Your task to perform on an android device: toggle priority inbox in the gmail app Image 0: 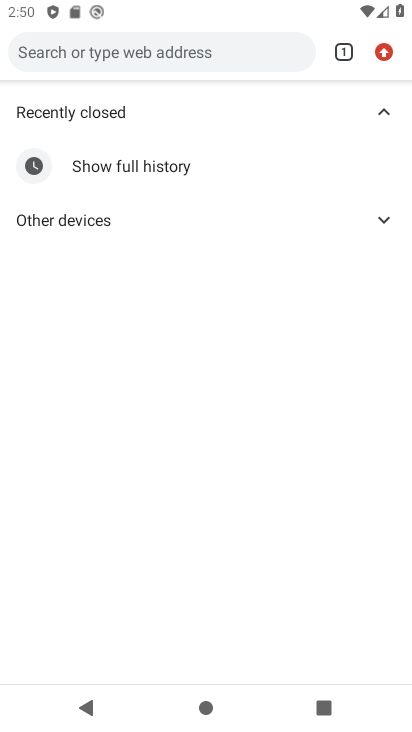
Step 0: press home button
Your task to perform on an android device: toggle priority inbox in the gmail app Image 1: 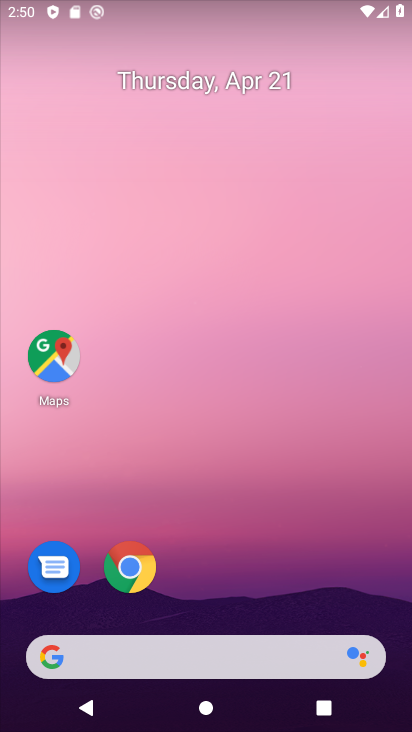
Step 1: drag from (261, 606) to (198, 51)
Your task to perform on an android device: toggle priority inbox in the gmail app Image 2: 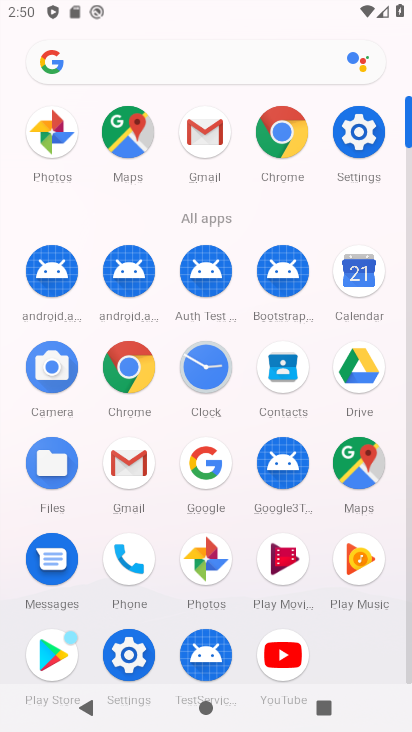
Step 2: click (207, 151)
Your task to perform on an android device: toggle priority inbox in the gmail app Image 3: 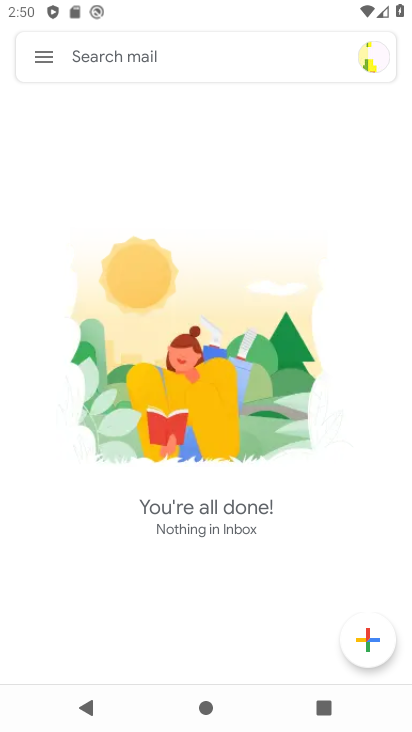
Step 3: click (53, 55)
Your task to perform on an android device: toggle priority inbox in the gmail app Image 4: 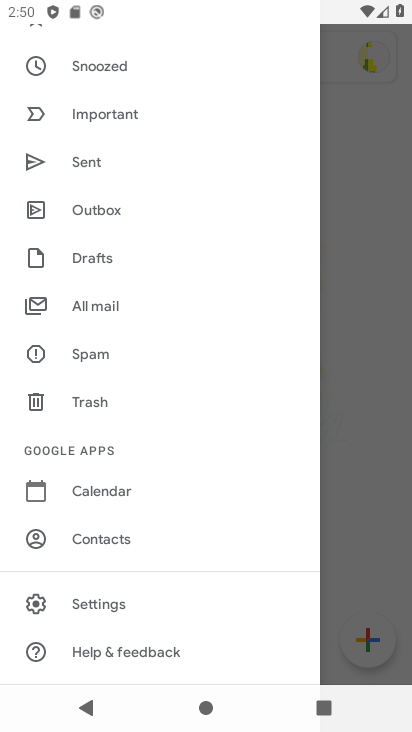
Step 4: click (147, 614)
Your task to perform on an android device: toggle priority inbox in the gmail app Image 5: 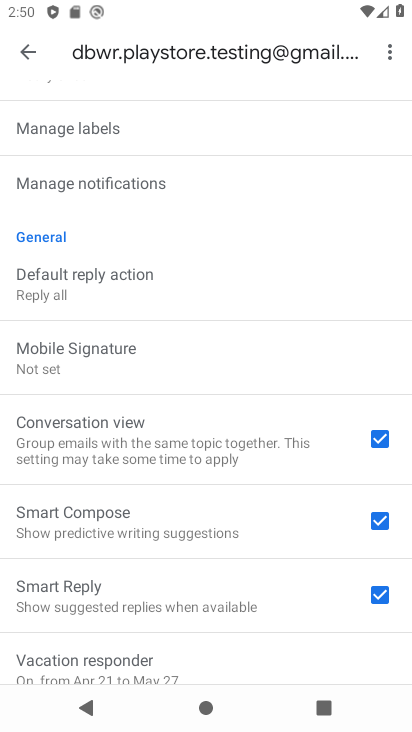
Step 5: drag from (147, 171) to (199, 626)
Your task to perform on an android device: toggle priority inbox in the gmail app Image 6: 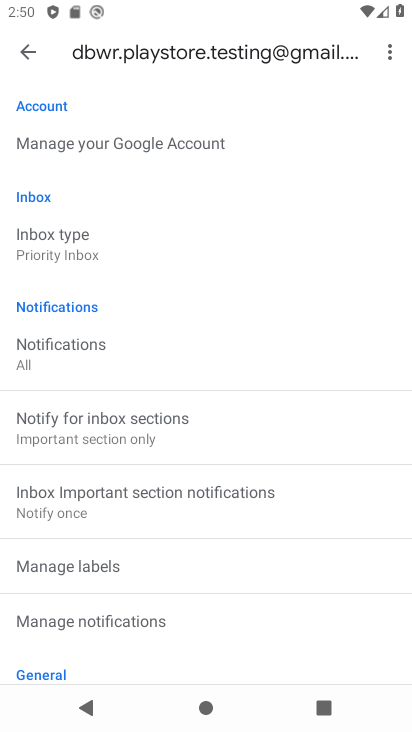
Step 6: click (101, 257)
Your task to perform on an android device: toggle priority inbox in the gmail app Image 7: 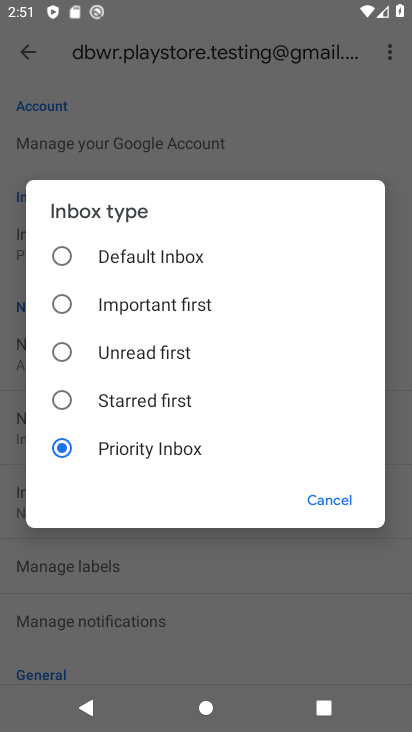
Step 7: click (109, 334)
Your task to perform on an android device: toggle priority inbox in the gmail app Image 8: 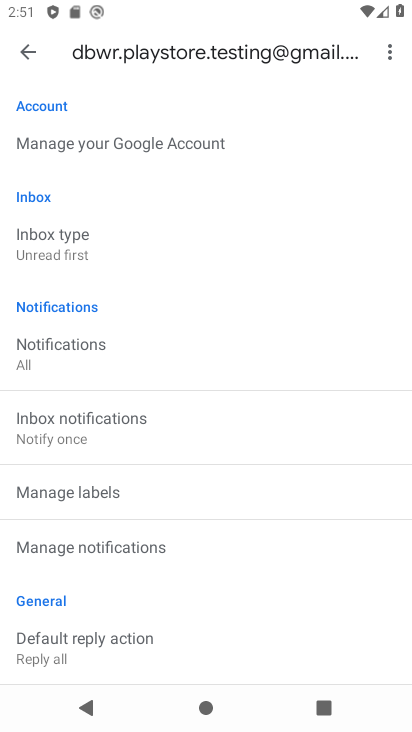
Step 8: task complete